Your task to perform on an android device: Open sound settings Image 0: 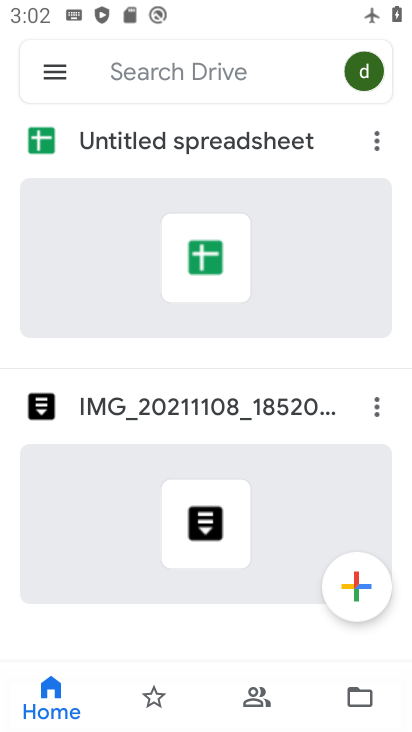
Step 0: press home button
Your task to perform on an android device: Open sound settings Image 1: 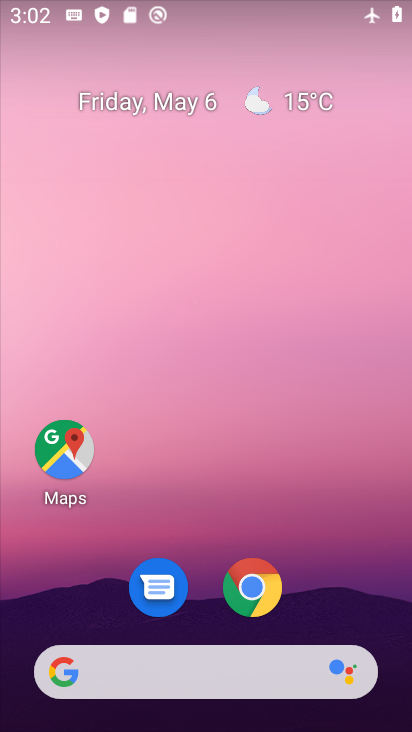
Step 1: drag from (208, 631) to (243, 78)
Your task to perform on an android device: Open sound settings Image 2: 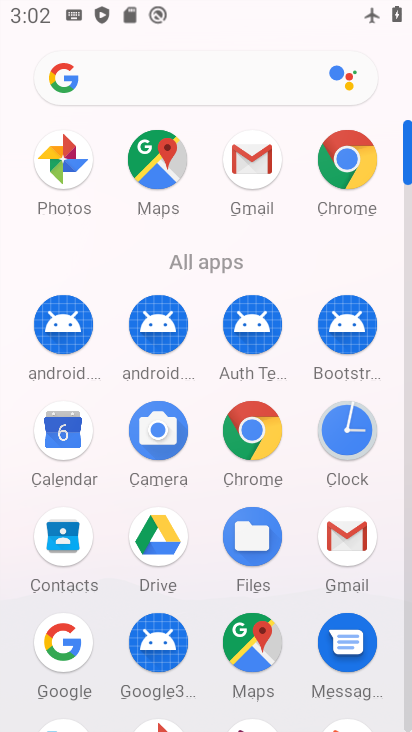
Step 2: drag from (199, 574) to (221, 56)
Your task to perform on an android device: Open sound settings Image 3: 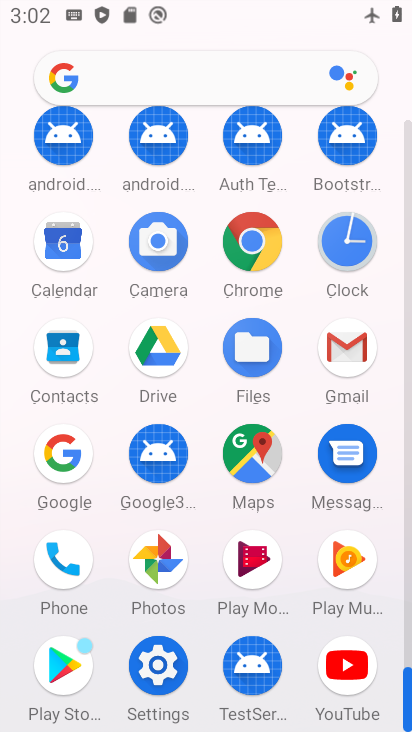
Step 3: click (156, 641)
Your task to perform on an android device: Open sound settings Image 4: 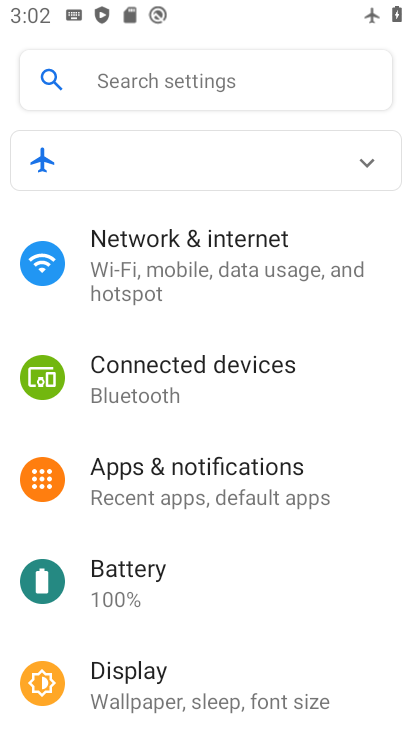
Step 4: drag from (187, 629) to (186, 203)
Your task to perform on an android device: Open sound settings Image 5: 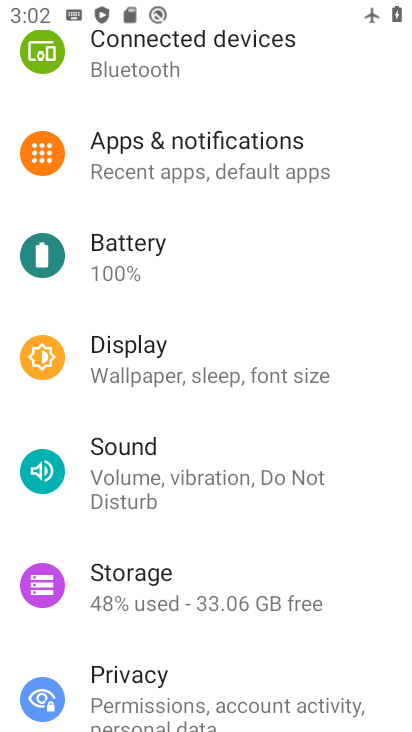
Step 5: click (172, 472)
Your task to perform on an android device: Open sound settings Image 6: 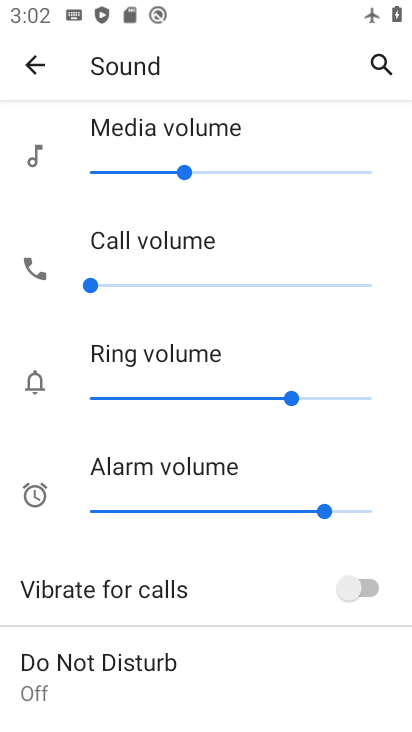
Step 6: task complete